Your task to perform on an android device: find photos in the google photos app Image 0: 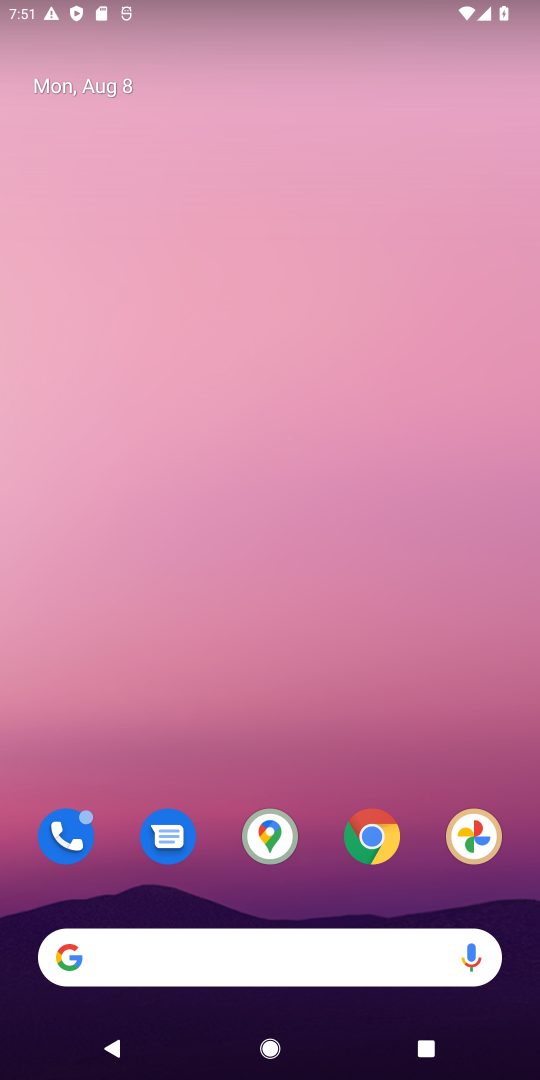
Step 0: drag from (442, 757) to (397, 94)
Your task to perform on an android device: find photos in the google photos app Image 1: 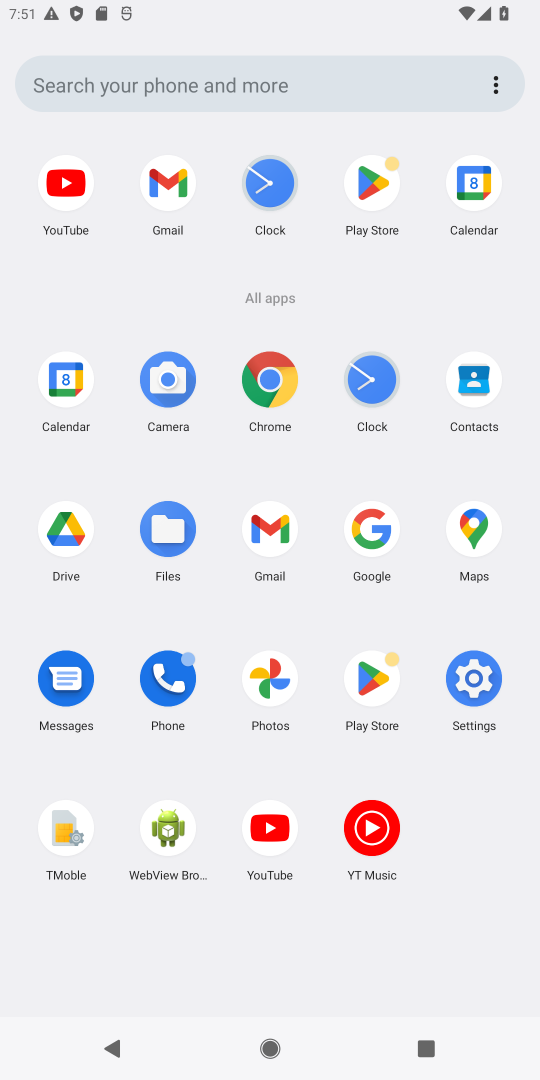
Step 1: click (279, 674)
Your task to perform on an android device: find photos in the google photos app Image 2: 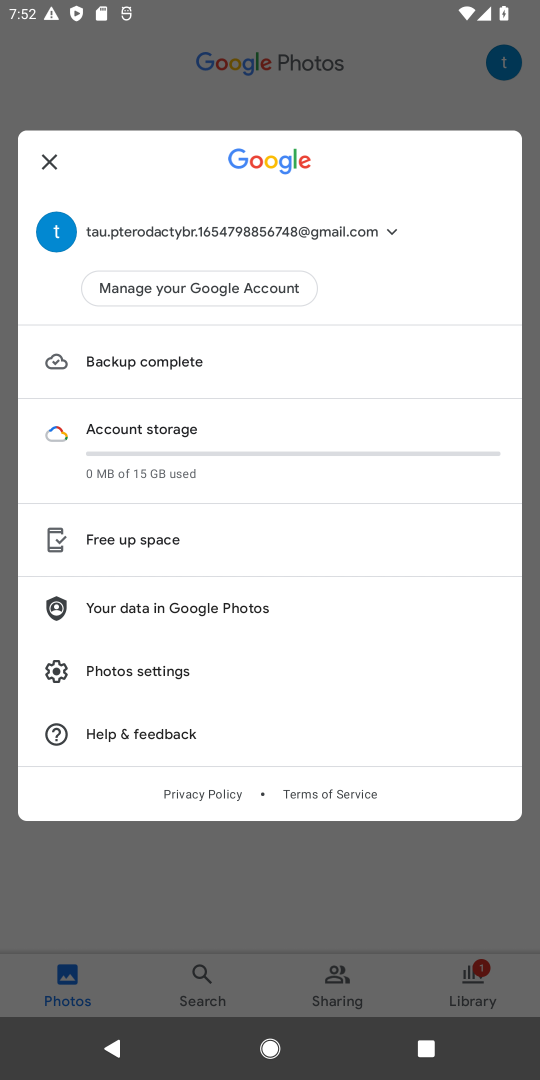
Step 2: click (45, 161)
Your task to perform on an android device: find photos in the google photos app Image 3: 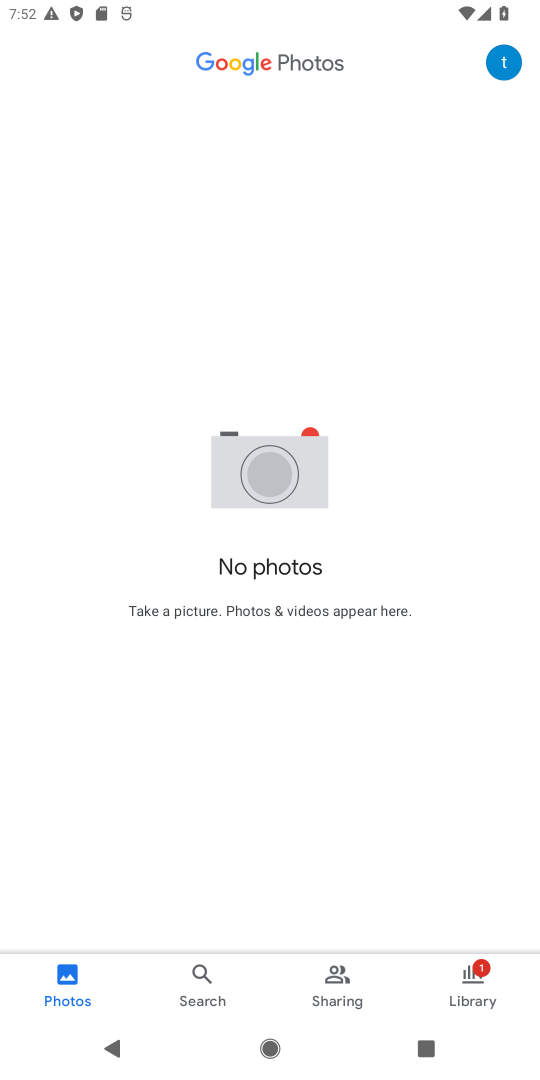
Step 3: task complete